Your task to perform on an android device: toggle translation in the chrome app Image 0: 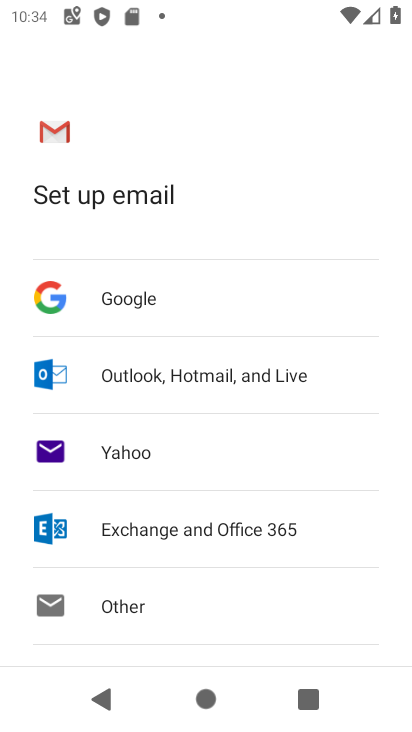
Step 0: press home button
Your task to perform on an android device: toggle translation in the chrome app Image 1: 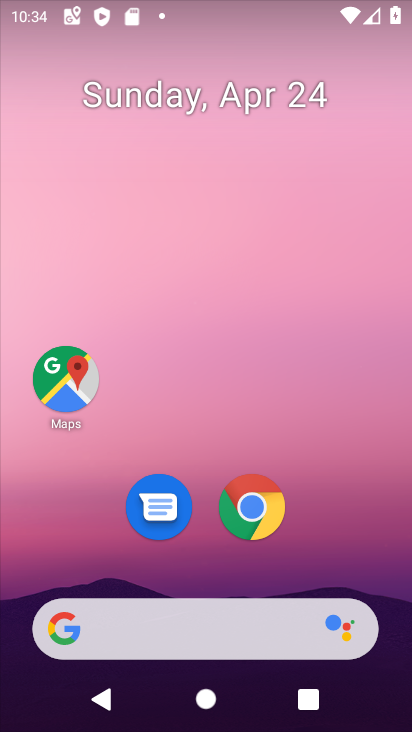
Step 1: click (272, 505)
Your task to perform on an android device: toggle translation in the chrome app Image 2: 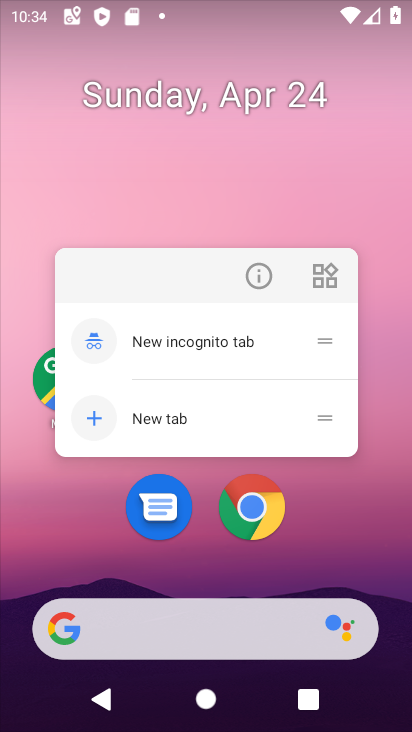
Step 2: click (272, 504)
Your task to perform on an android device: toggle translation in the chrome app Image 3: 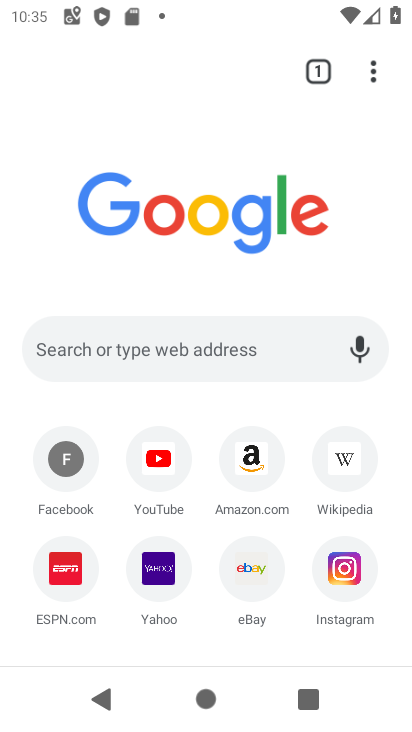
Step 3: click (371, 84)
Your task to perform on an android device: toggle translation in the chrome app Image 4: 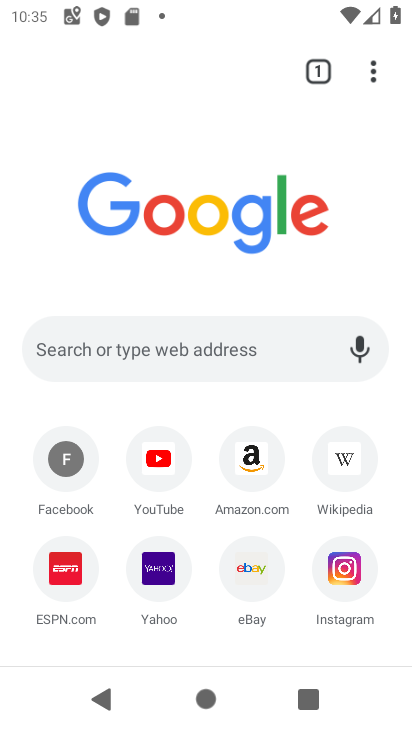
Step 4: click (375, 79)
Your task to perform on an android device: toggle translation in the chrome app Image 5: 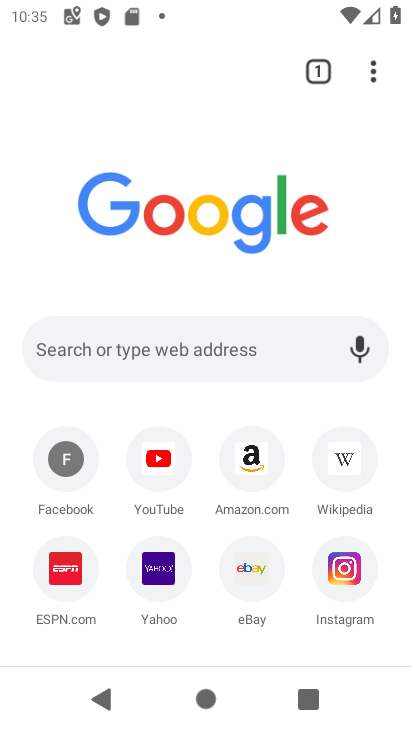
Step 5: click (373, 84)
Your task to perform on an android device: toggle translation in the chrome app Image 6: 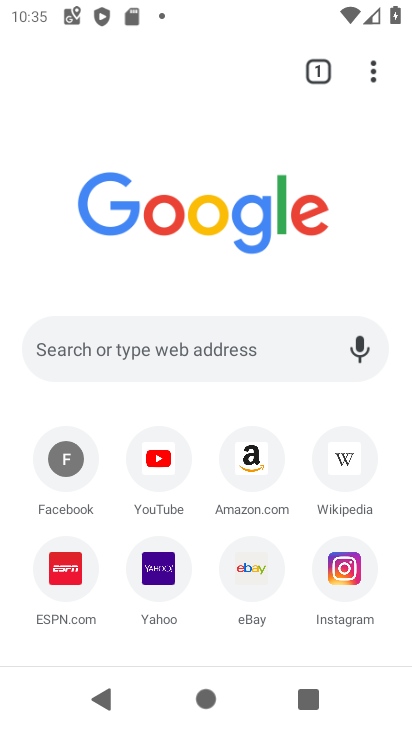
Step 6: click (375, 92)
Your task to perform on an android device: toggle translation in the chrome app Image 7: 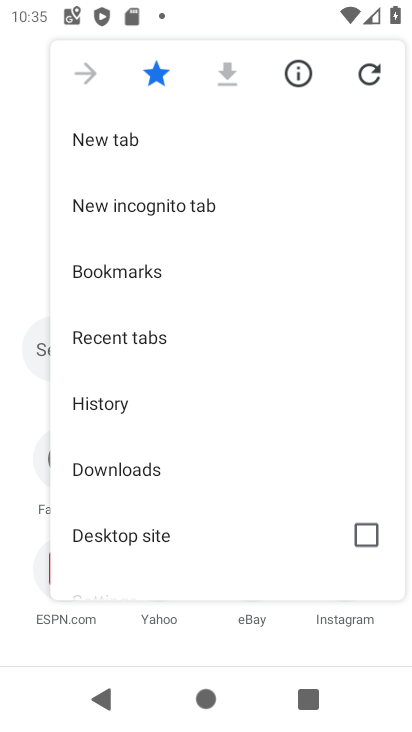
Step 7: drag from (188, 474) to (168, 156)
Your task to perform on an android device: toggle translation in the chrome app Image 8: 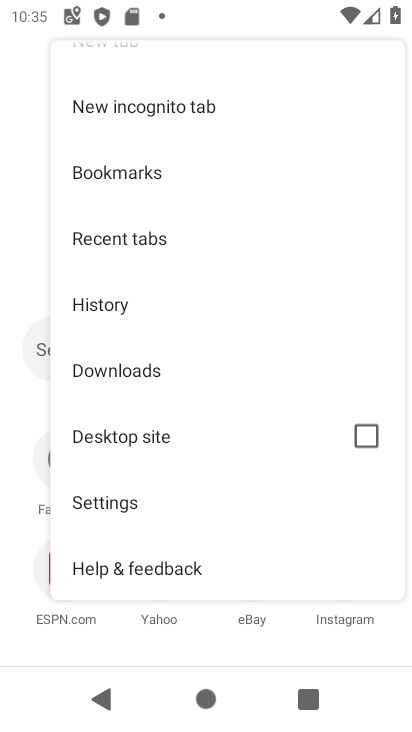
Step 8: click (130, 498)
Your task to perform on an android device: toggle translation in the chrome app Image 9: 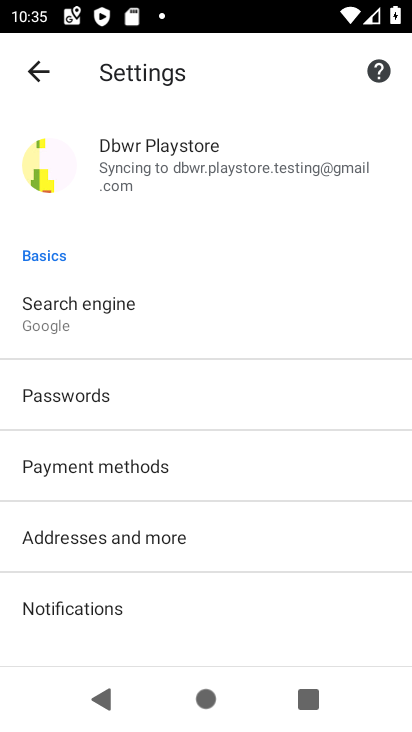
Step 9: drag from (197, 564) to (173, 267)
Your task to perform on an android device: toggle translation in the chrome app Image 10: 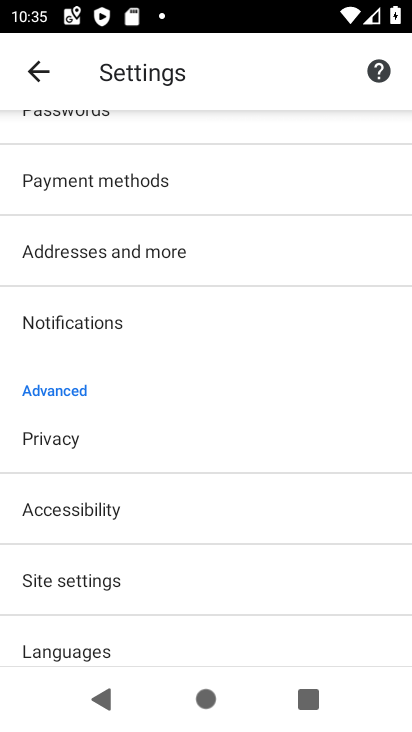
Step 10: drag from (162, 530) to (140, 325)
Your task to perform on an android device: toggle translation in the chrome app Image 11: 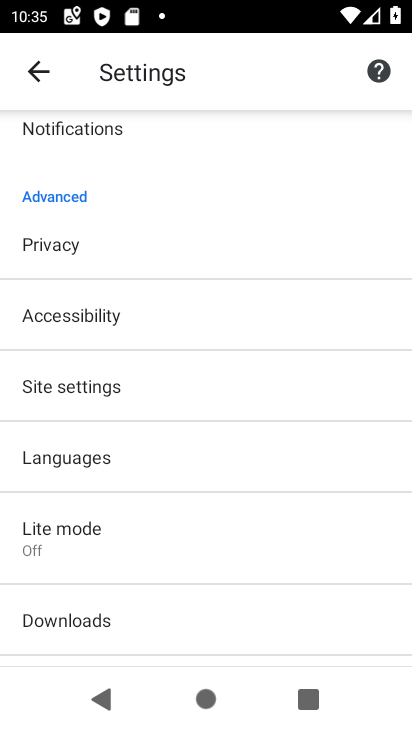
Step 11: click (109, 463)
Your task to perform on an android device: toggle translation in the chrome app Image 12: 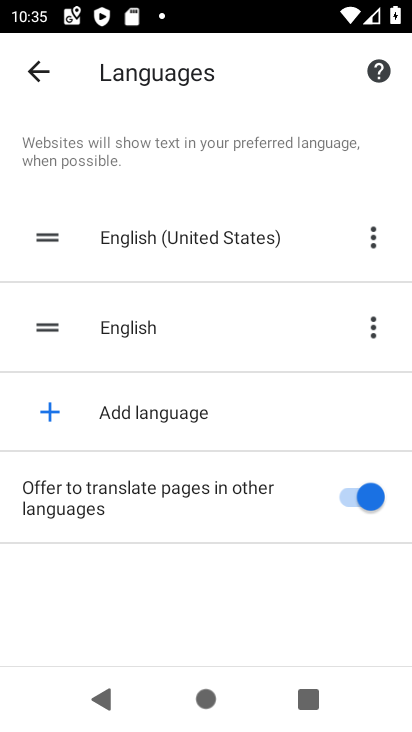
Step 12: click (366, 497)
Your task to perform on an android device: toggle translation in the chrome app Image 13: 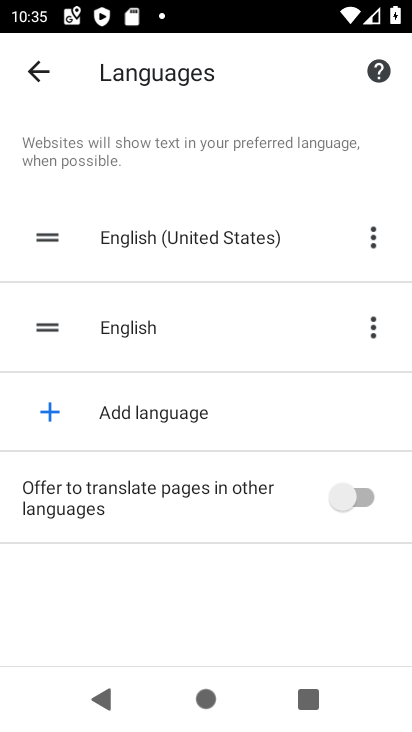
Step 13: task complete